Your task to perform on an android device: Search for the ikea billy bookcase Image 0: 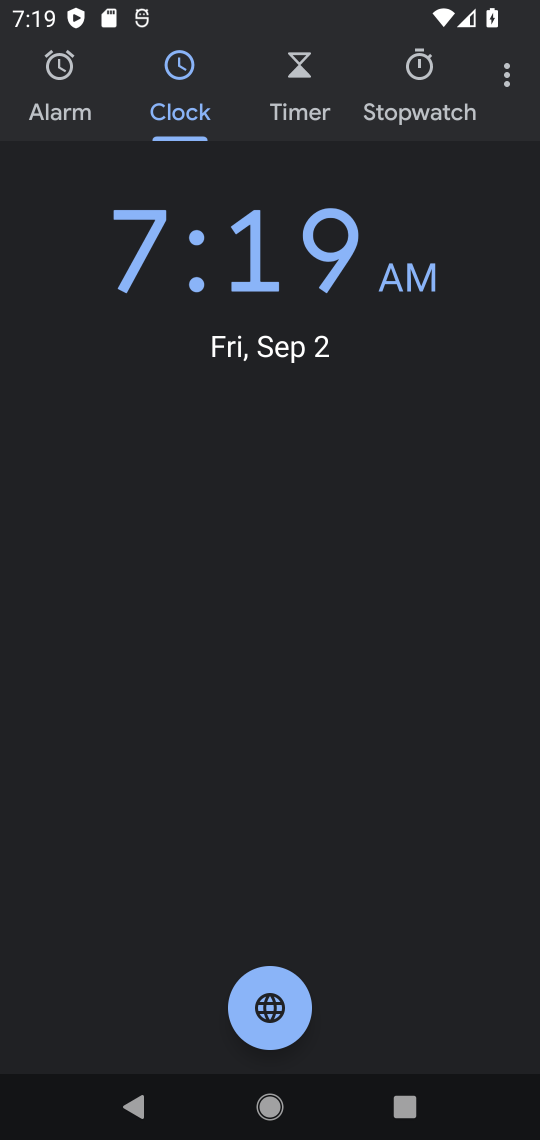
Step 0: press home button
Your task to perform on an android device: Search for the ikea billy bookcase Image 1: 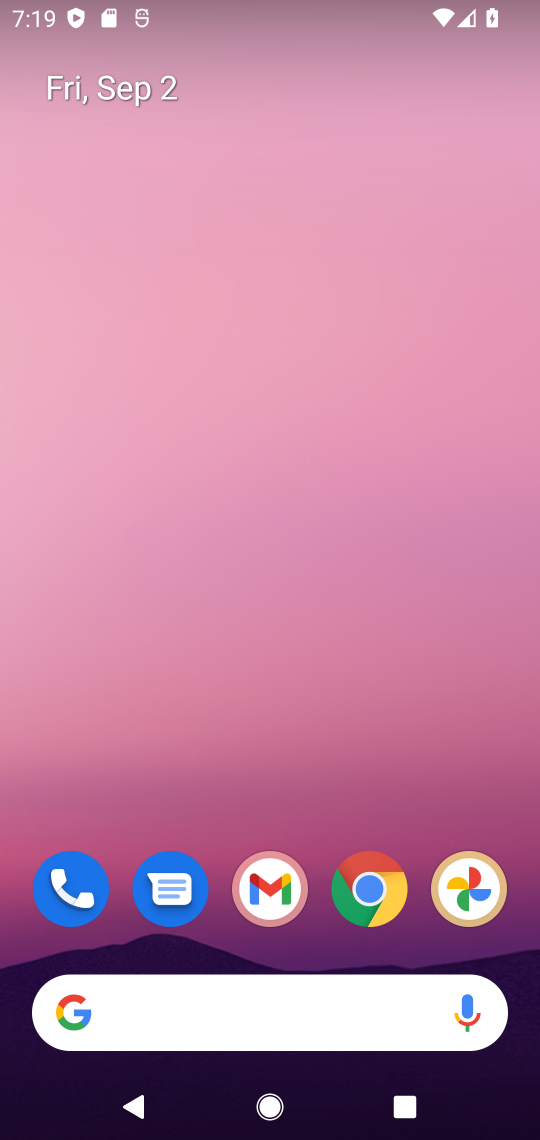
Step 1: click (215, 988)
Your task to perform on an android device: Search for the ikea billy bookcase Image 2: 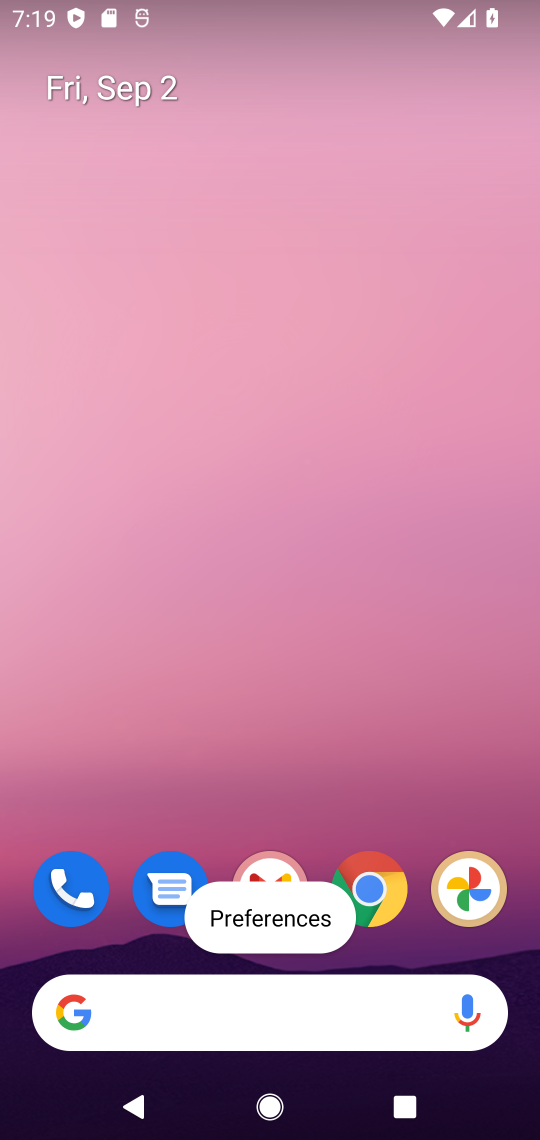
Step 2: click (215, 988)
Your task to perform on an android device: Search for the ikea billy bookcase Image 3: 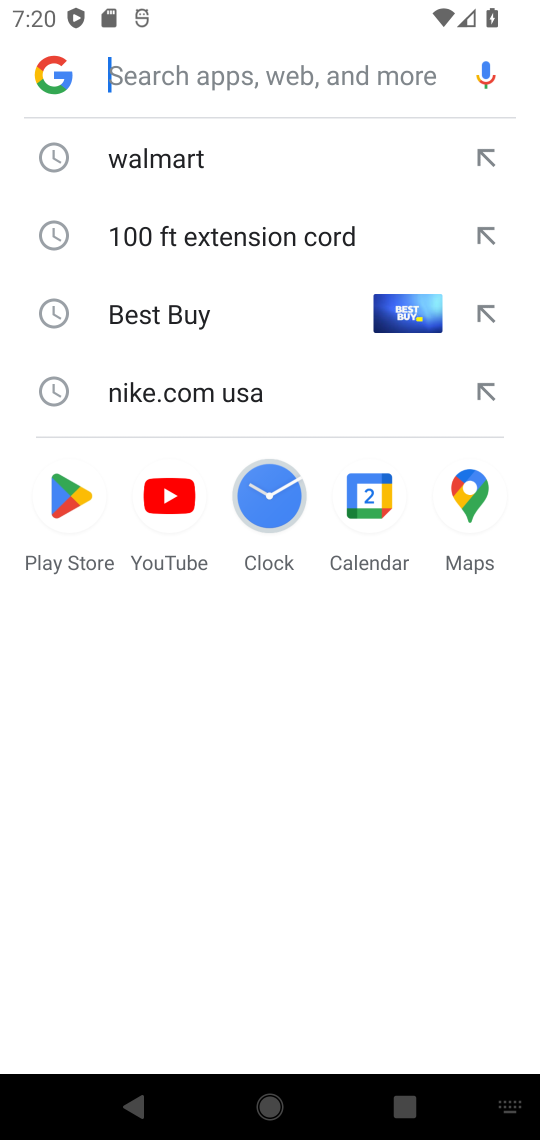
Step 3: type " ikea billy bookcase"
Your task to perform on an android device: Search for the ikea billy bookcase Image 4: 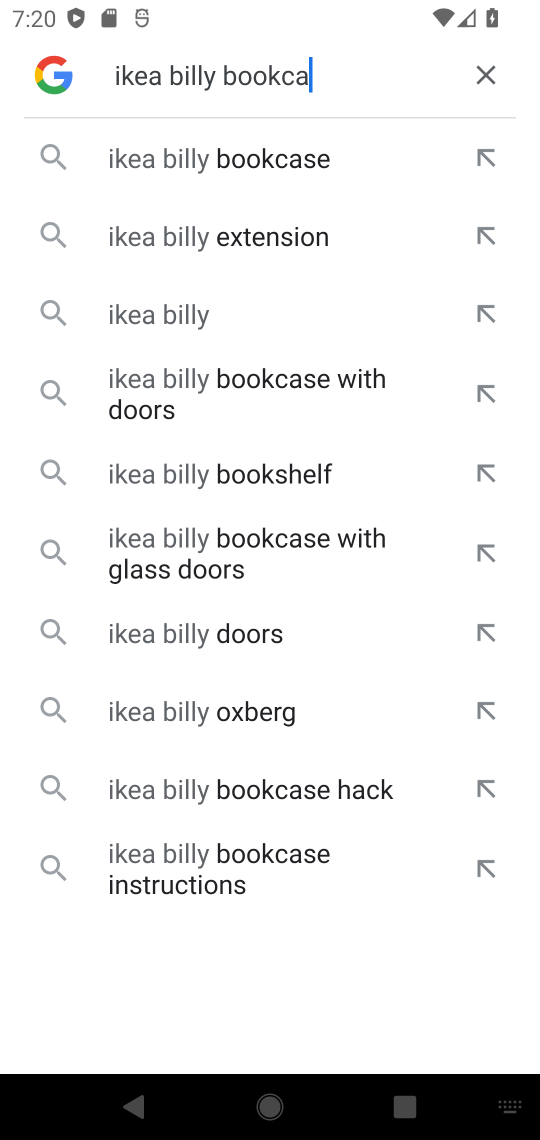
Step 4: type ""
Your task to perform on an android device: Search for the ikea billy bookcase Image 5: 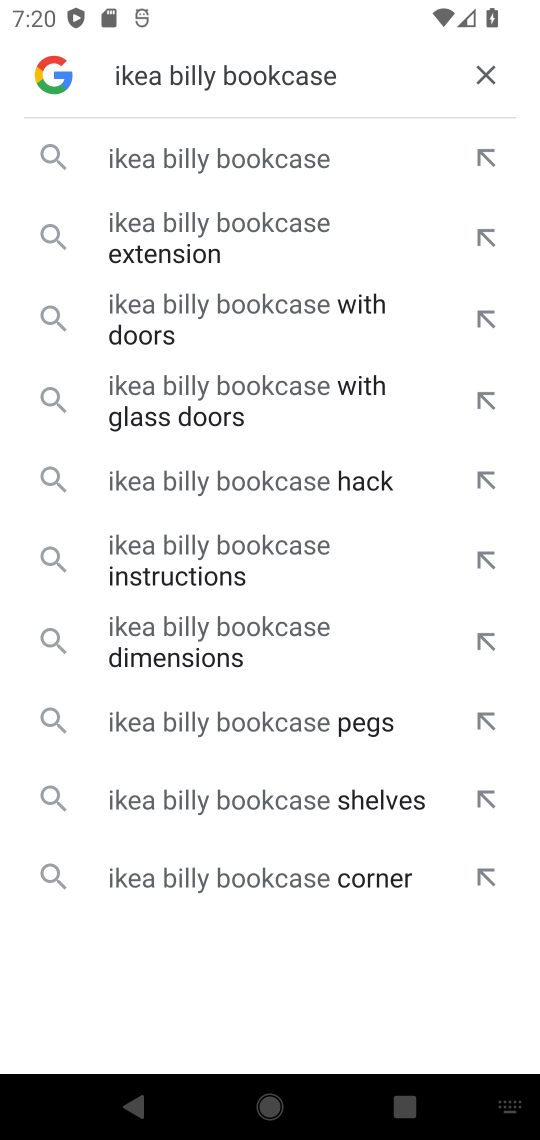
Step 5: click (219, 168)
Your task to perform on an android device: Search for the ikea billy bookcase Image 6: 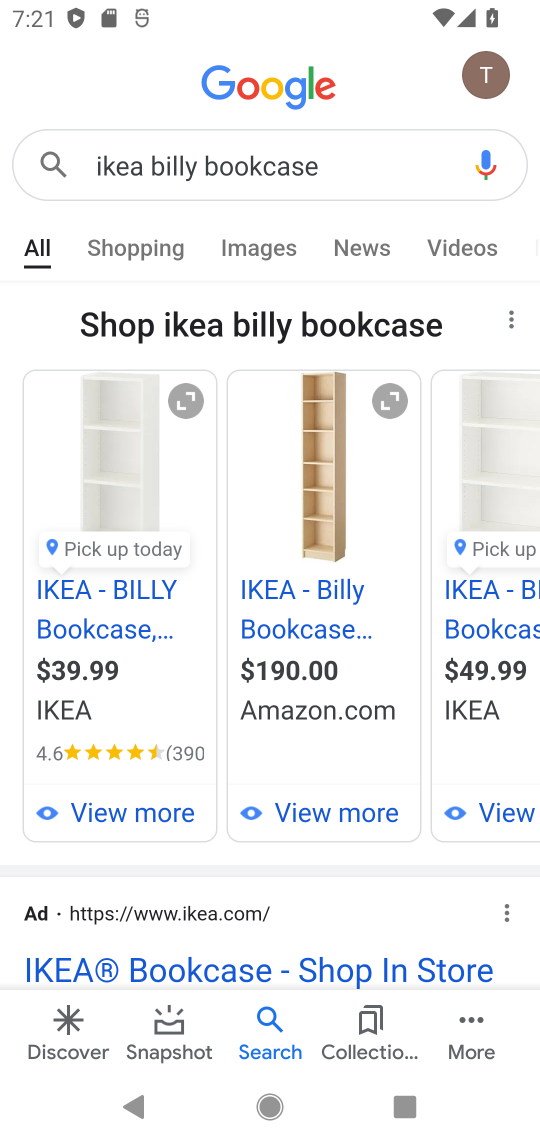
Step 6: task complete